Your task to perform on an android device: Add "logitech g pro" to the cart on bestbuy.com Image 0: 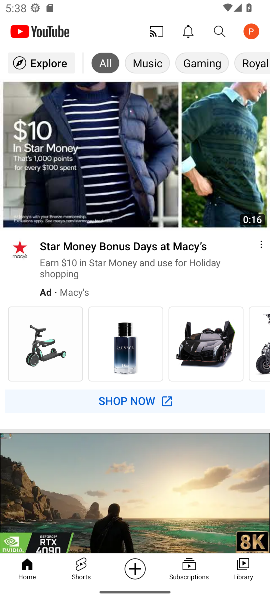
Step 0: press home button
Your task to perform on an android device: Add "logitech g pro" to the cart on bestbuy.com Image 1: 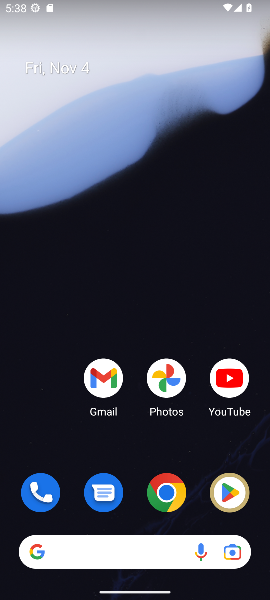
Step 1: drag from (154, 456) to (137, 104)
Your task to perform on an android device: Add "logitech g pro" to the cart on bestbuy.com Image 2: 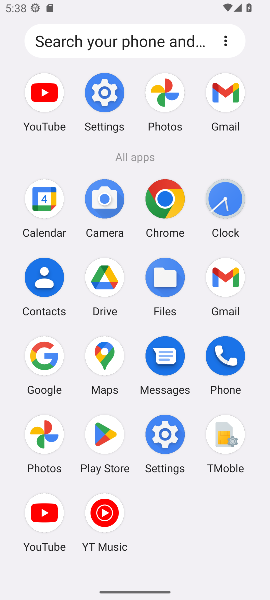
Step 2: click (166, 203)
Your task to perform on an android device: Add "logitech g pro" to the cart on bestbuy.com Image 3: 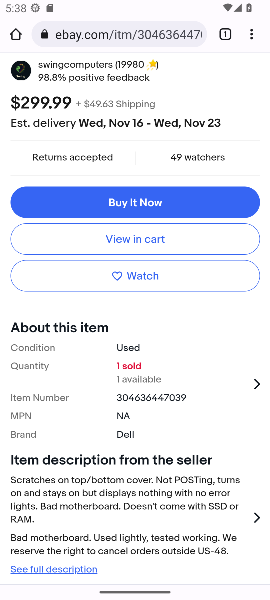
Step 3: click (148, 31)
Your task to perform on an android device: Add "logitech g pro" to the cart on bestbuy.com Image 4: 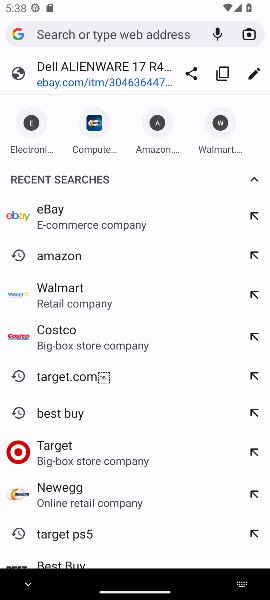
Step 4: type "bestbuy.com"
Your task to perform on an android device: Add "logitech g pro" to the cart on bestbuy.com Image 5: 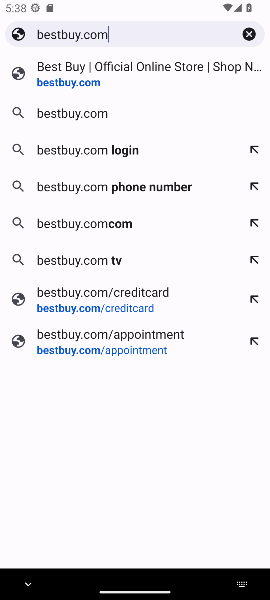
Step 5: press enter
Your task to perform on an android device: Add "logitech g pro" to the cart on bestbuy.com Image 6: 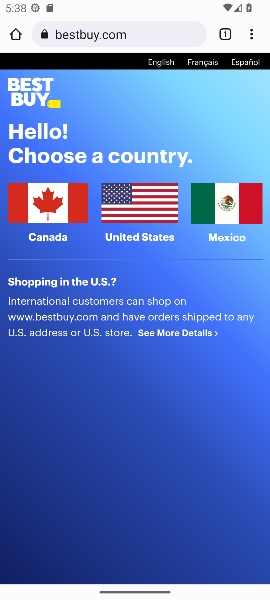
Step 6: click (53, 211)
Your task to perform on an android device: Add "logitech g pro" to the cart on bestbuy.com Image 7: 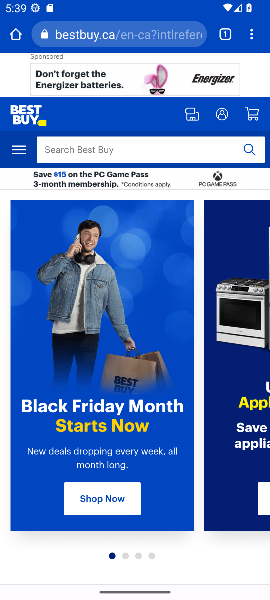
Step 7: click (188, 144)
Your task to perform on an android device: Add "logitech g pro" to the cart on bestbuy.com Image 8: 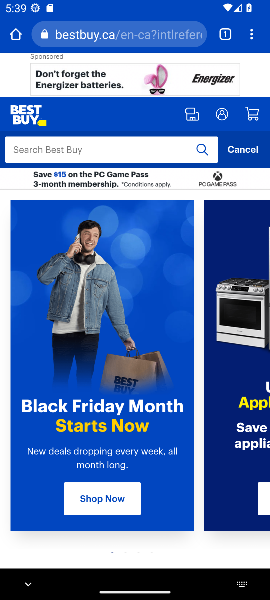
Step 8: type "logitech g pro"
Your task to perform on an android device: Add "logitech g pro" to the cart on bestbuy.com Image 9: 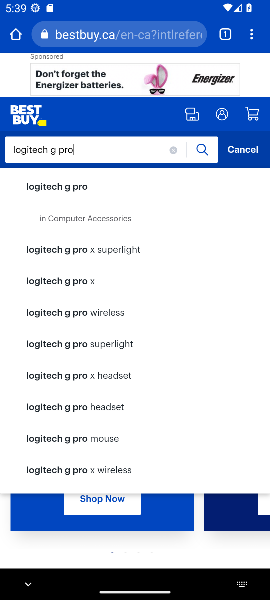
Step 9: press enter
Your task to perform on an android device: Add "logitech g pro" to the cart on bestbuy.com Image 10: 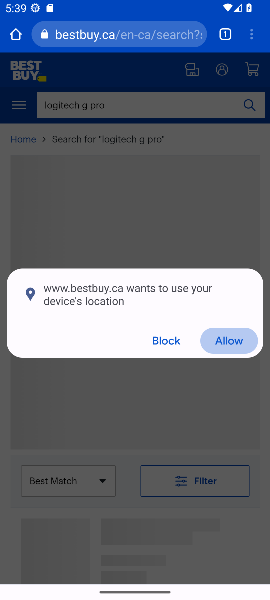
Step 10: click (169, 334)
Your task to perform on an android device: Add "logitech g pro" to the cart on bestbuy.com Image 11: 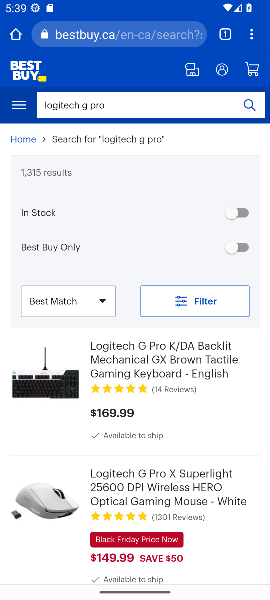
Step 11: click (134, 373)
Your task to perform on an android device: Add "logitech g pro" to the cart on bestbuy.com Image 12: 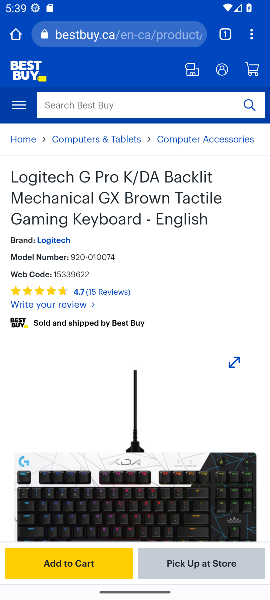
Step 12: drag from (166, 449) to (128, 198)
Your task to perform on an android device: Add "logitech g pro" to the cart on bestbuy.com Image 13: 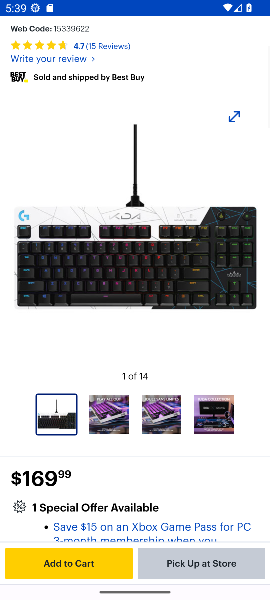
Step 13: click (93, 566)
Your task to perform on an android device: Add "logitech g pro" to the cart on bestbuy.com Image 14: 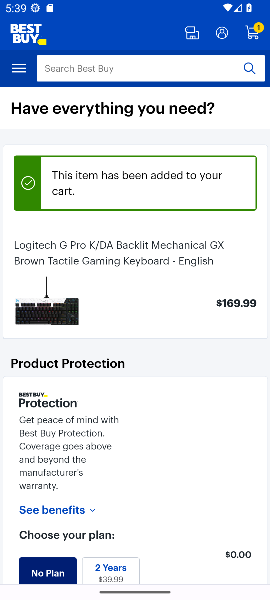
Step 14: task complete